Your task to perform on an android device: Search for the best selling coffee table on Crate & Barrel Image 0: 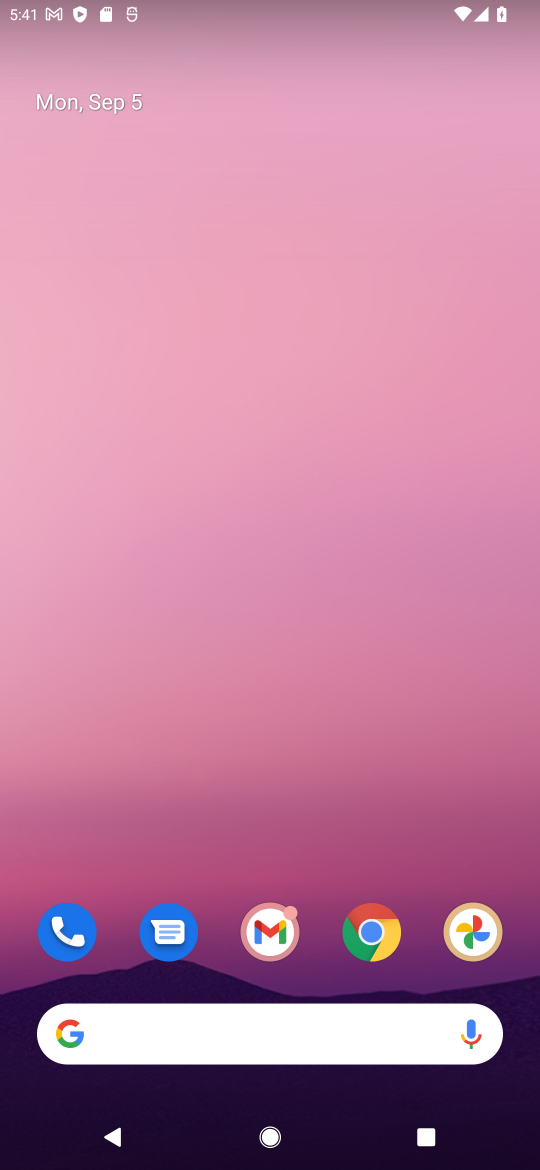
Step 0: drag from (317, 979) to (326, 71)
Your task to perform on an android device: Search for the best selling coffee table on Crate & Barrel Image 1: 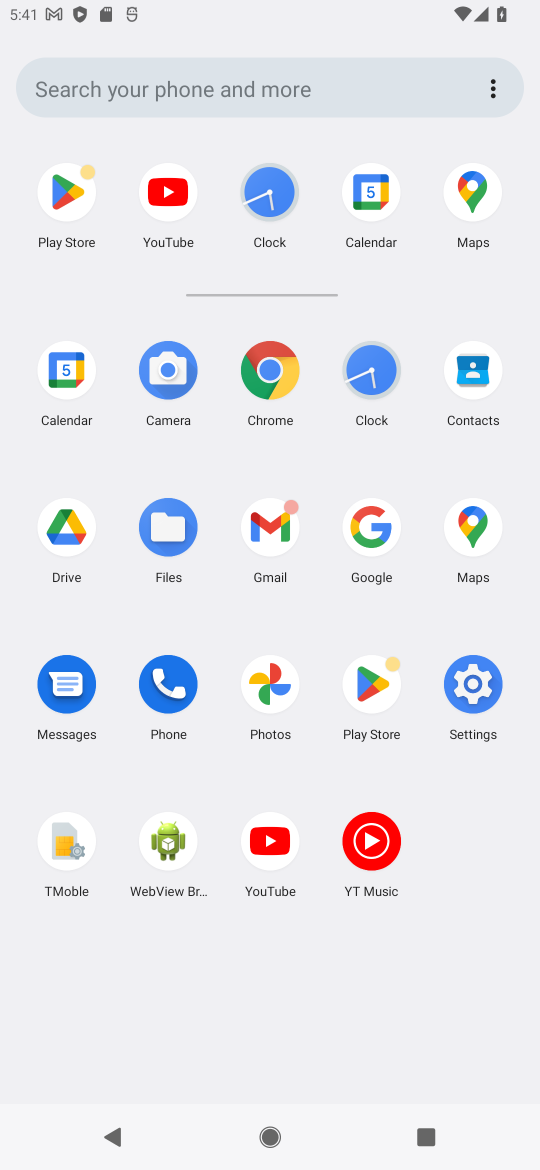
Step 1: click (267, 372)
Your task to perform on an android device: Search for the best selling coffee table on Crate & Barrel Image 2: 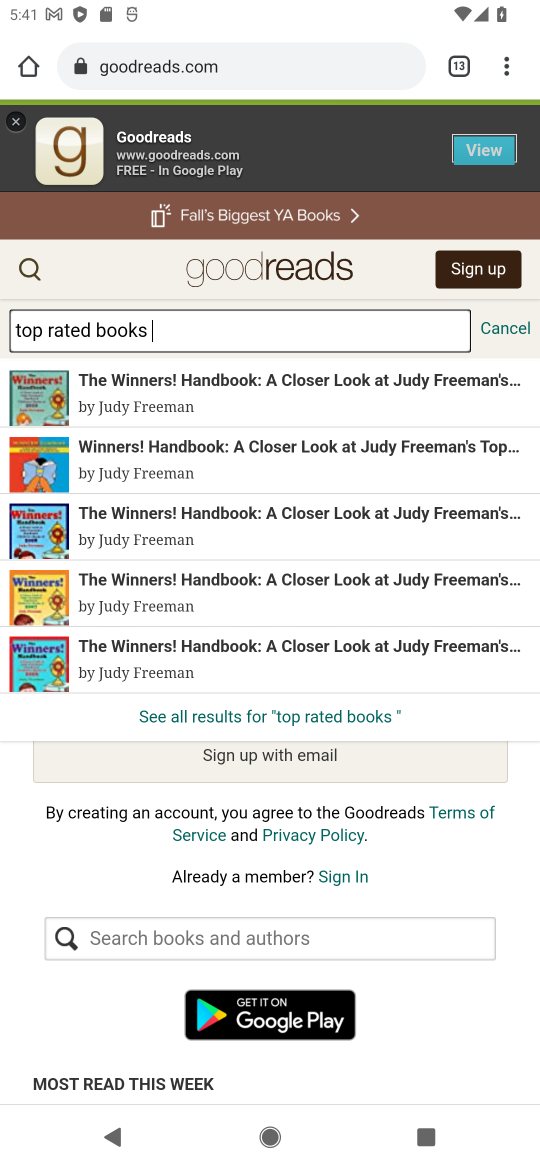
Step 2: drag from (509, 70) to (309, 208)
Your task to perform on an android device: Search for the best selling coffee table on Crate & Barrel Image 3: 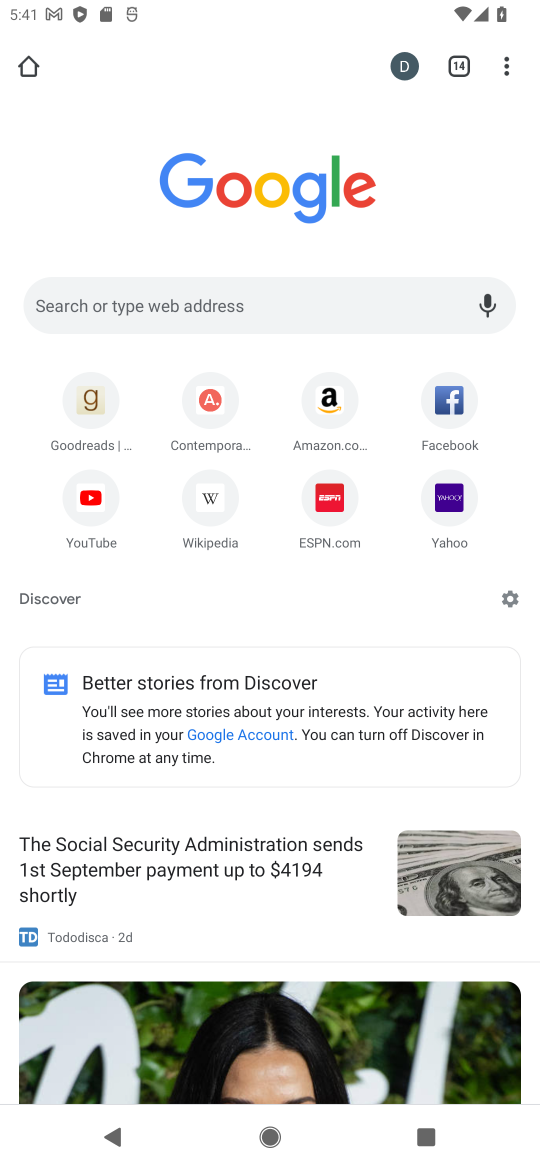
Step 3: click (189, 298)
Your task to perform on an android device: Search for the best selling coffee table on Crate & Barrel Image 4: 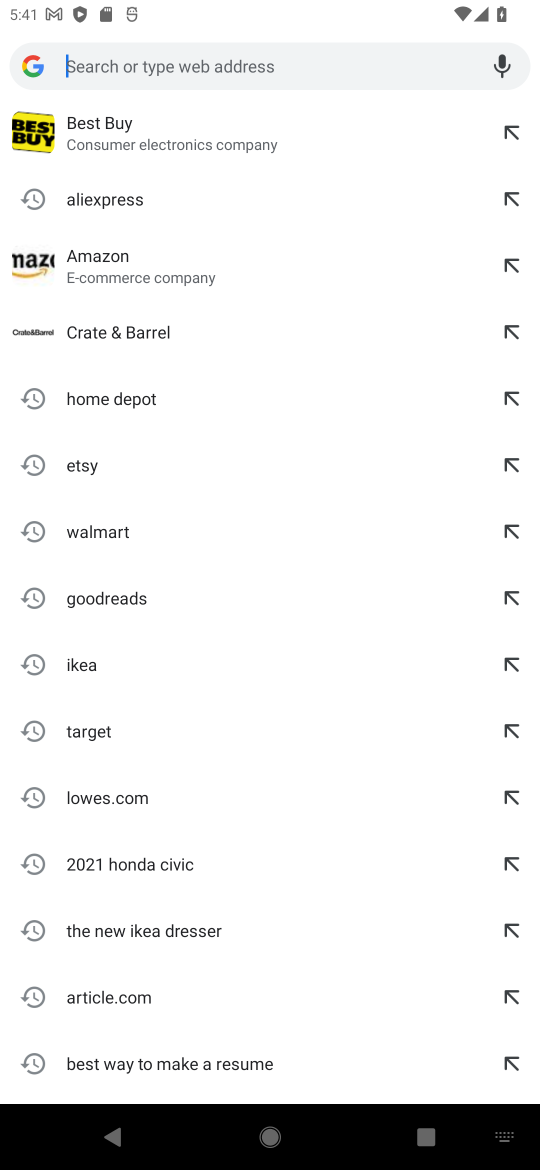
Step 4: type "Crate & Barrel"
Your task to perform on an android device: Search for the best selling coffee table on Crate & Barrel Image 5: 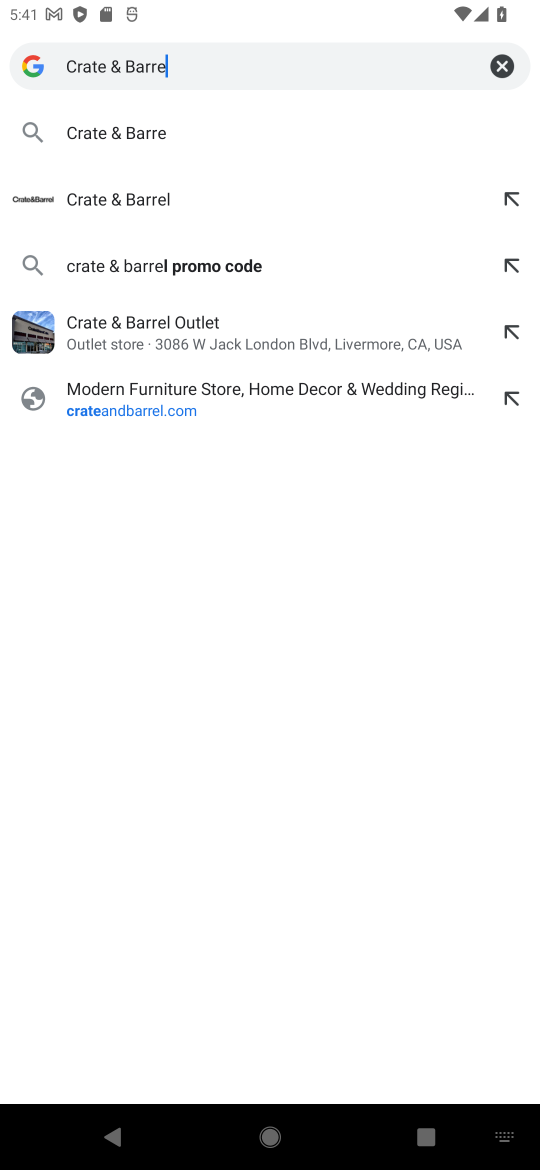
Step 5: type ""
Your task to perform on an android device: Search for the best selling coffee table on Crate & Barrel Image 6: 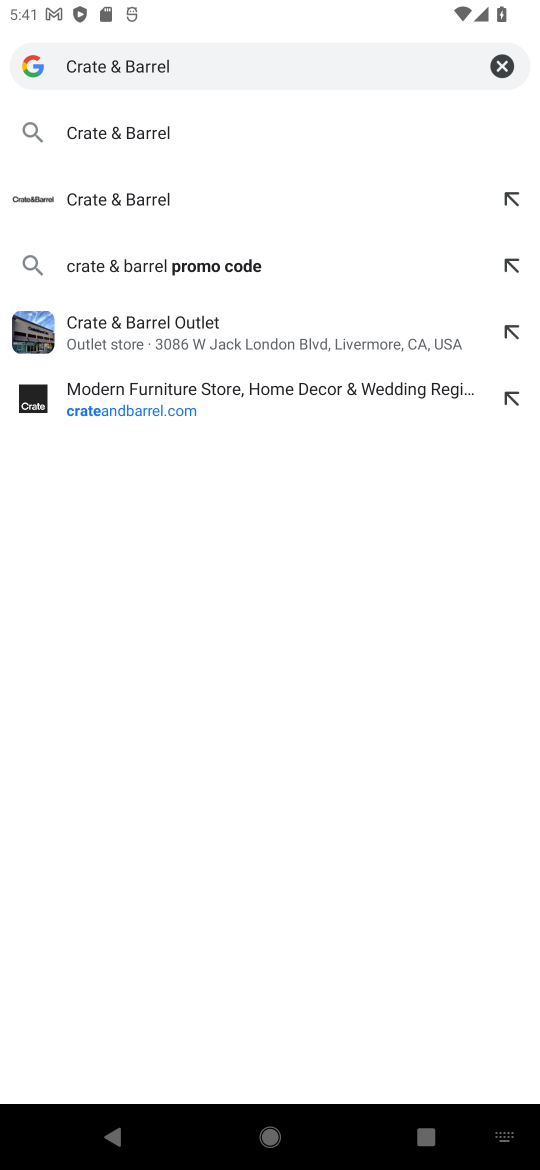
Step 6: click (138, 128)
Your task to perform on an android device: Search for the best selling coffee table on Crate & Barrel Image 7: 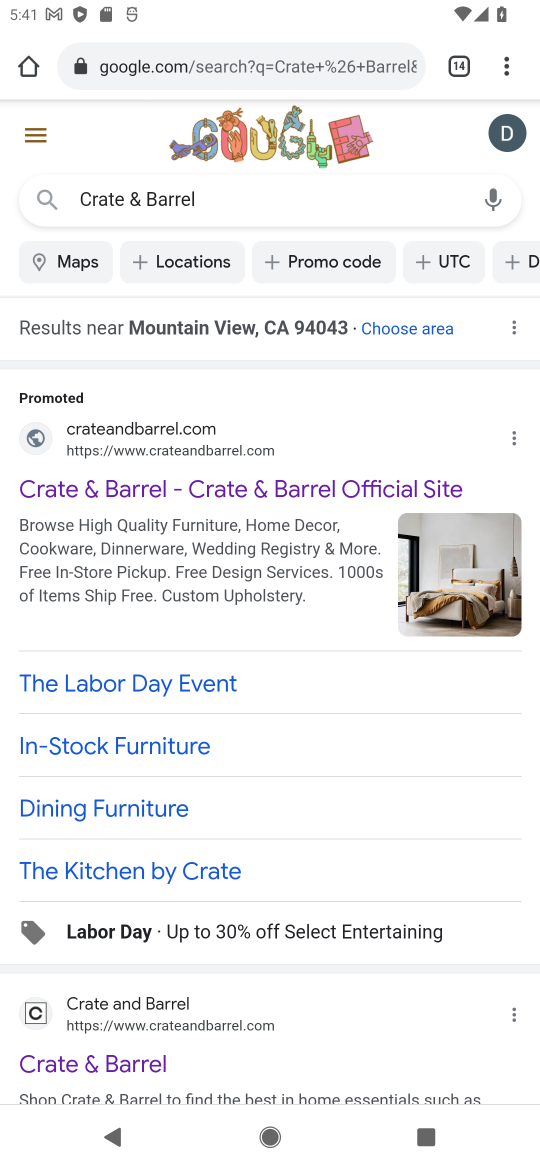
Step 7: click (166, 489)
Your task to perform on an android device: Search for the best selling coffee table on Crate & Barrel Image 8: 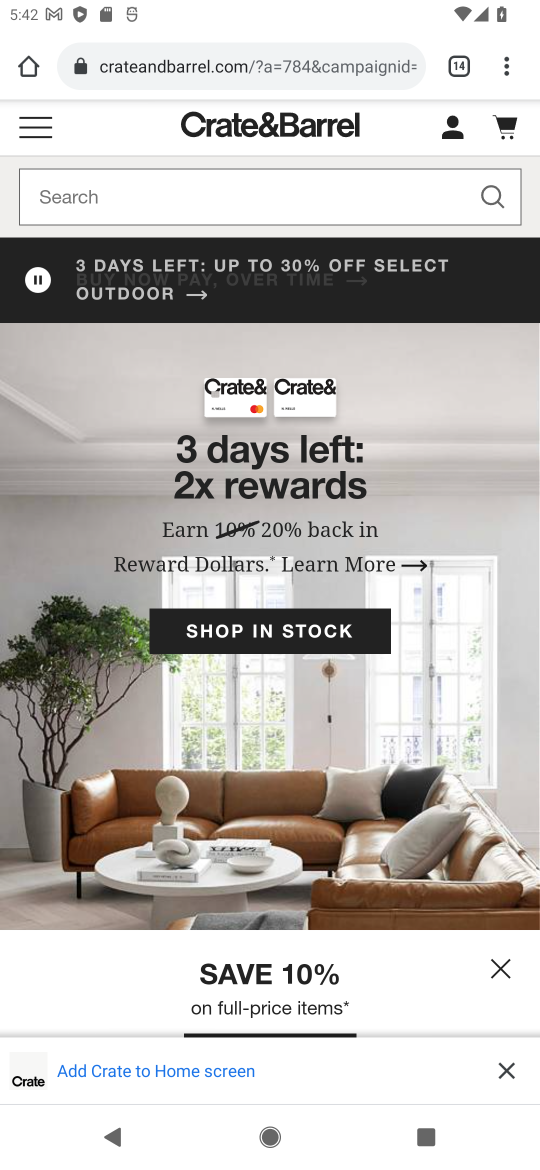
Step 8: click (272, 184)
Your task to perform on an android device: Search for the best selling coffee table on Crate & Barrel Image 9: 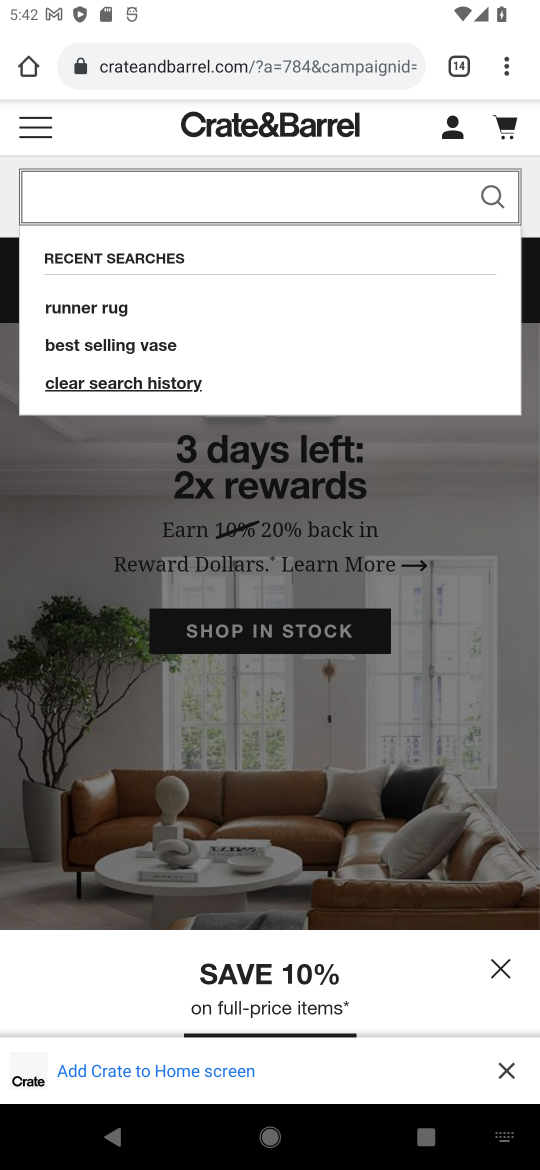
Step 9: type "coffee table"
Your task to perform on an android device: Search for the best selling coffee table on Crate & Barrel Image 10: 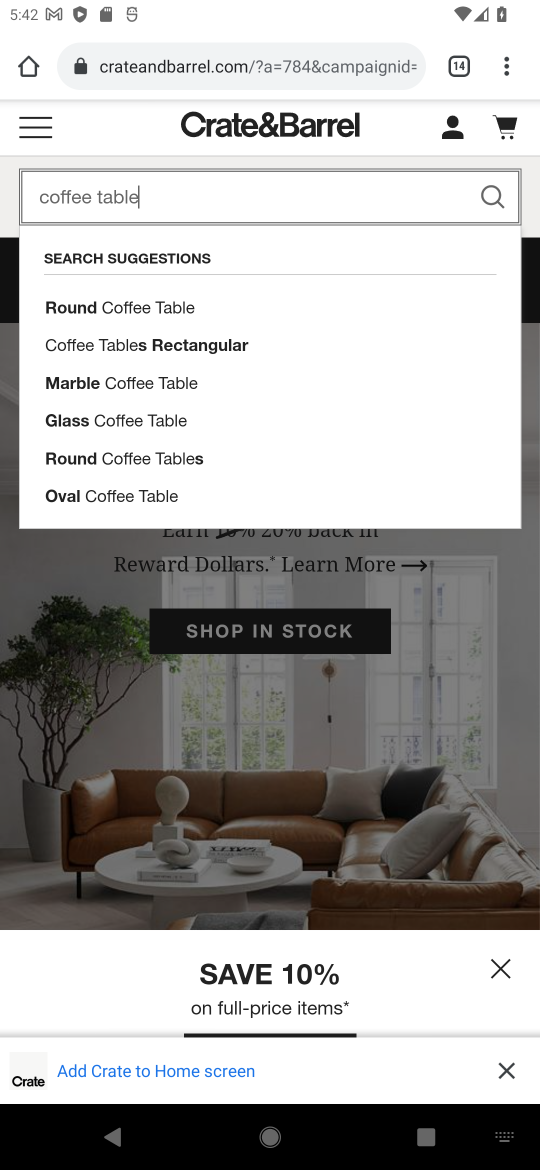
Step 10: click (492, 202)
Your task to perform on an android device: Search for the best selling coffee table on Crate & Barrel Image 11: 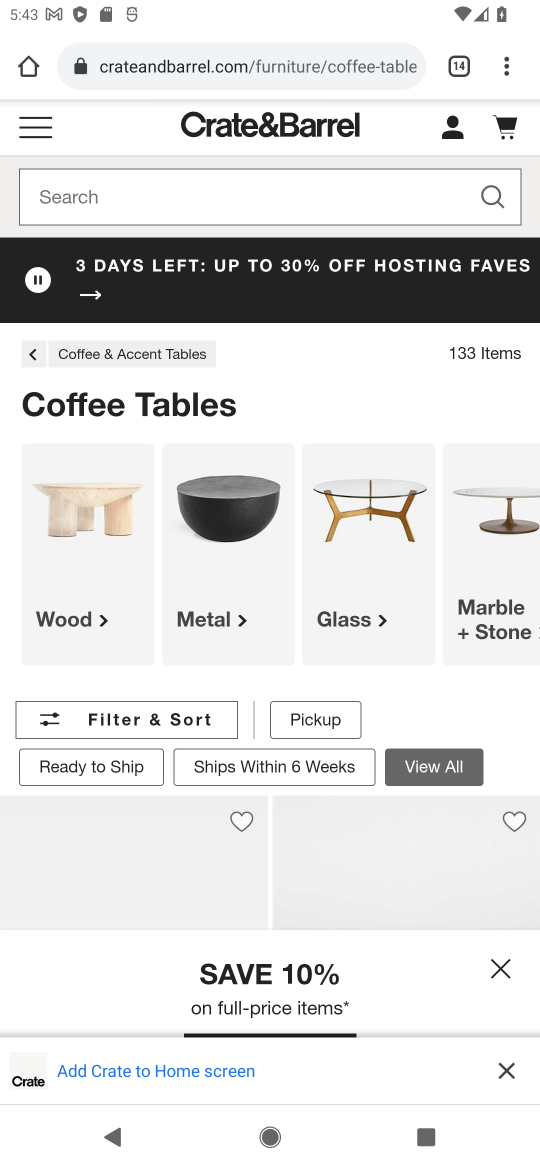
Step 11: task complete